Your task to perform on an android device: toggle translation in the chrome app Image 0: 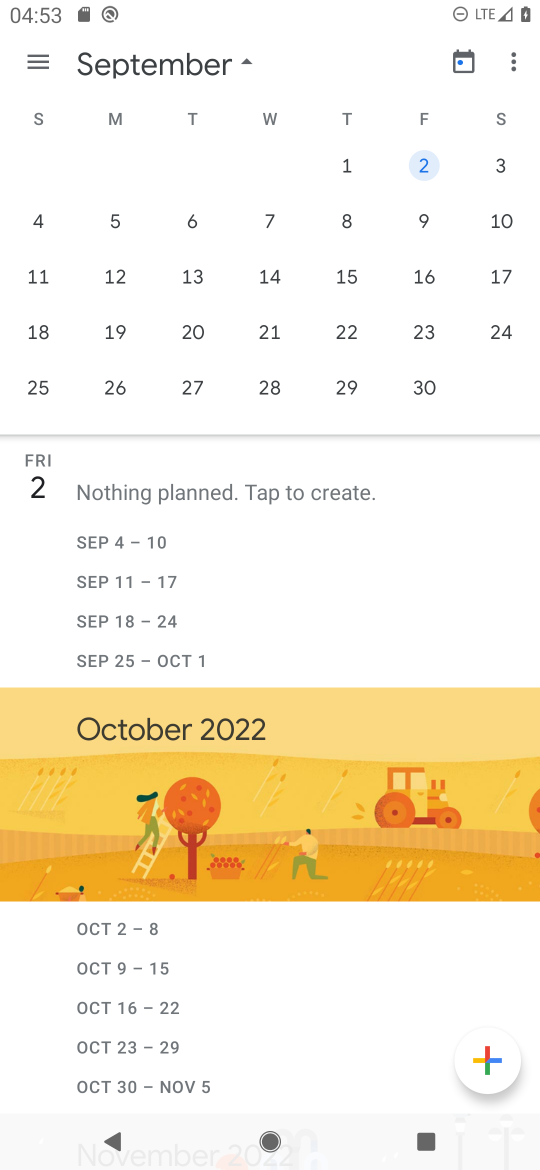
Step 0: press home button
Your task to perform on an android device: toggle translation in the chrome app Image 1: 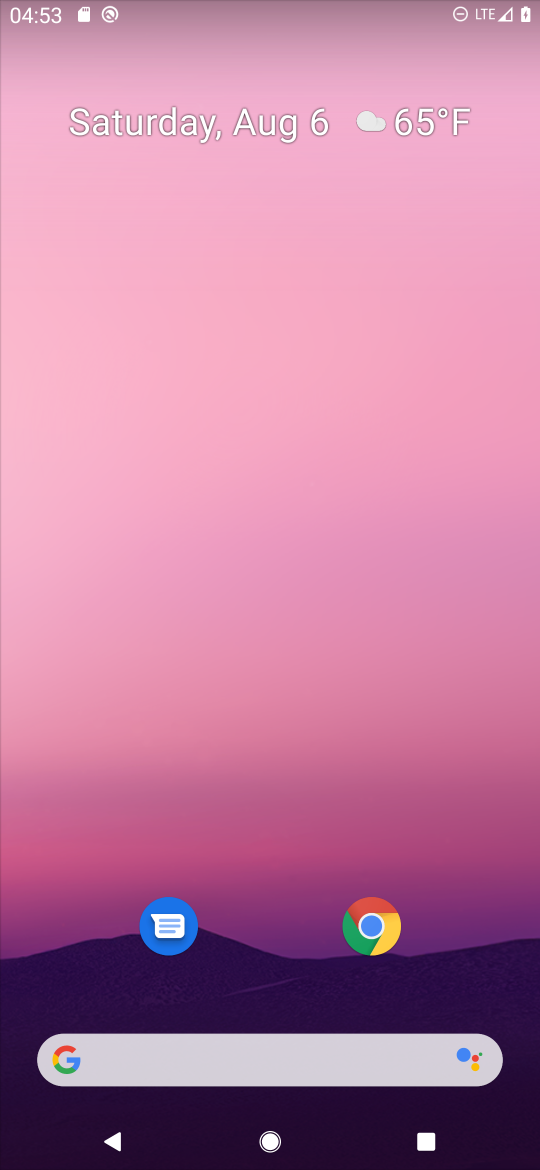
Step 1: click (379, 914)
Your task to perform on an android device: toggle translation in the chrome app Image 2: 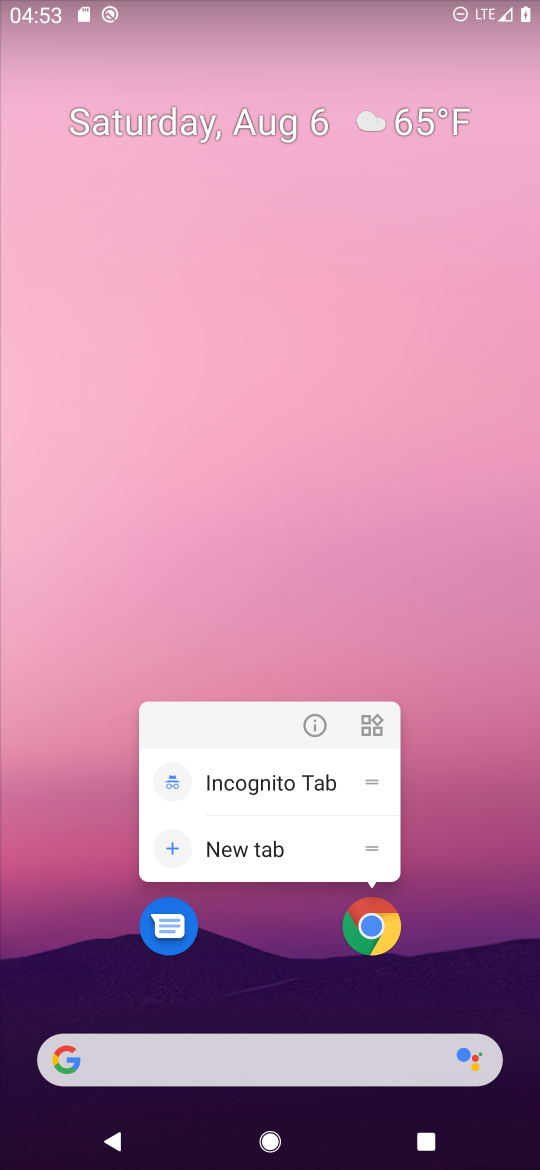
Step 2: click (381, 916)
Your task to perform on an android device: toggle translation in the chrome app Image 3: 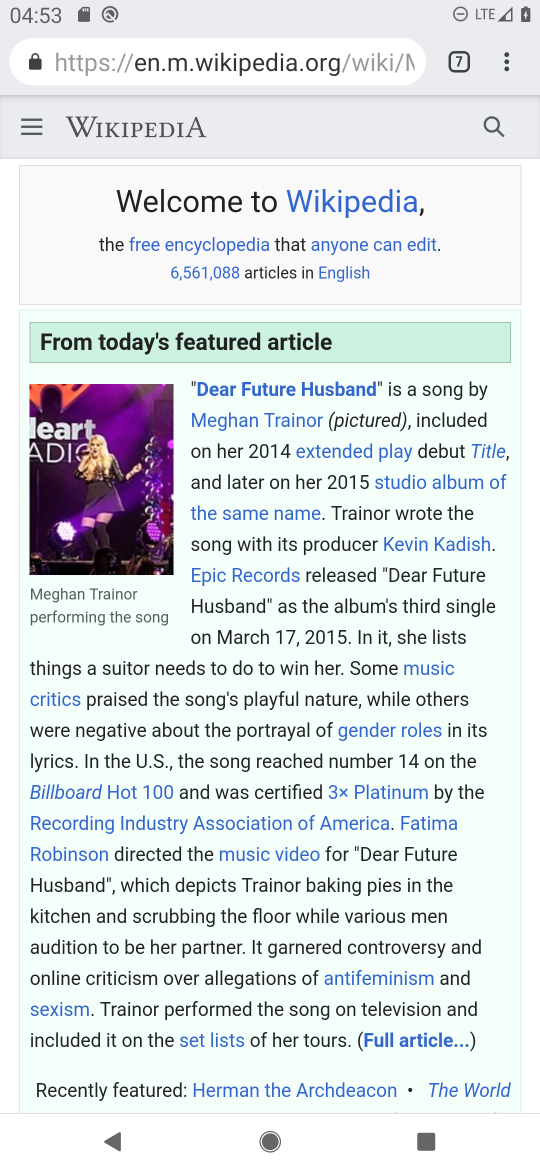
Step 3: click (502, 61)
Your task to perform on an android device: toggle translation in the chrome app Image 4: 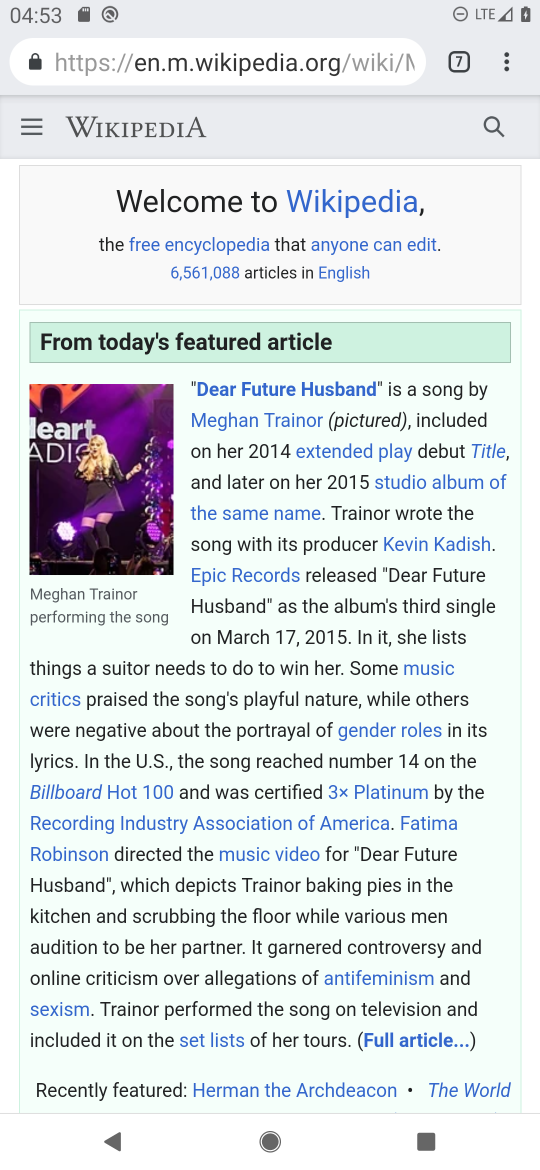
Step 4: drag from (499, 62) to (310, 746)
Your task to perform on an android device: toggle translation in the chrome app Image 5: 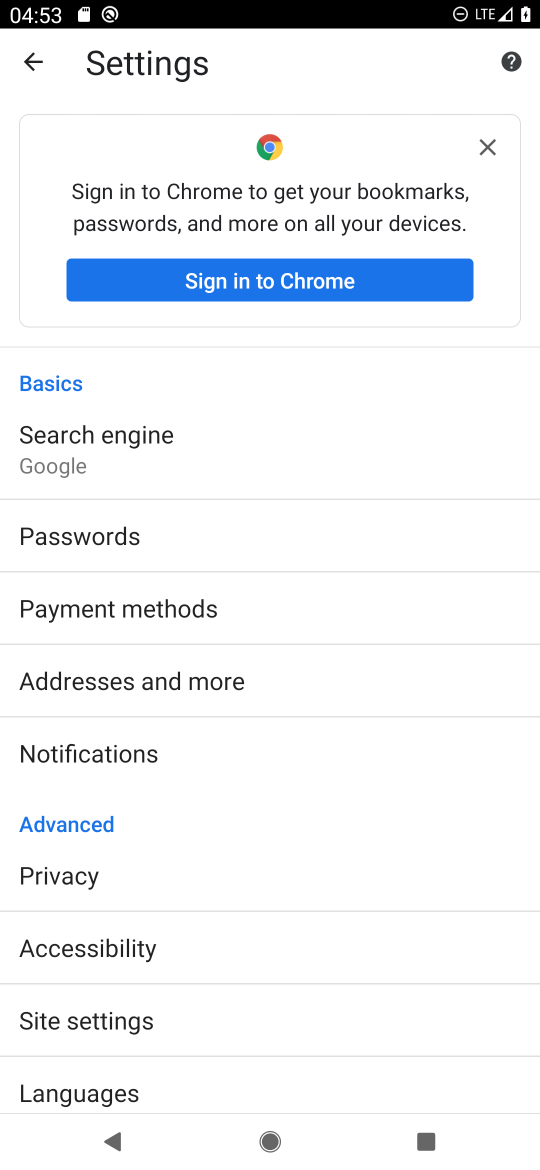
Step 5: drag from (223, 930) to (256, 521)
Your task to perform on an android device: toggle translation in the chrome app Image 6: 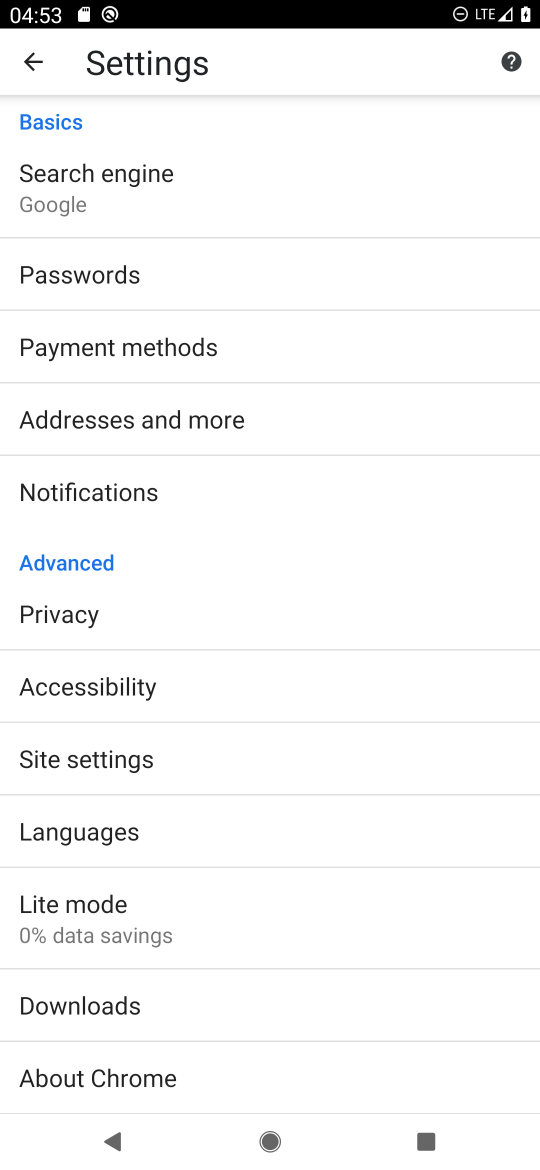
Step 6: click (153, 811)
Your task to perform on an android device: toggle translation in the chrome app Image 7: 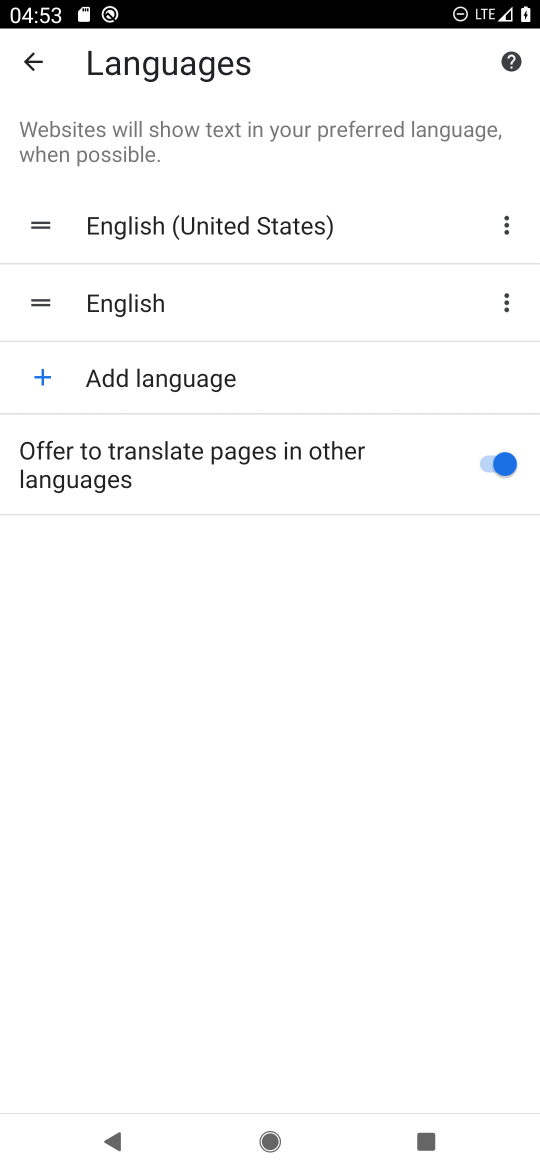
Step 7: click (486, 459)
Your task to perform on an android device: toggle translation in the chrome app Image 8: 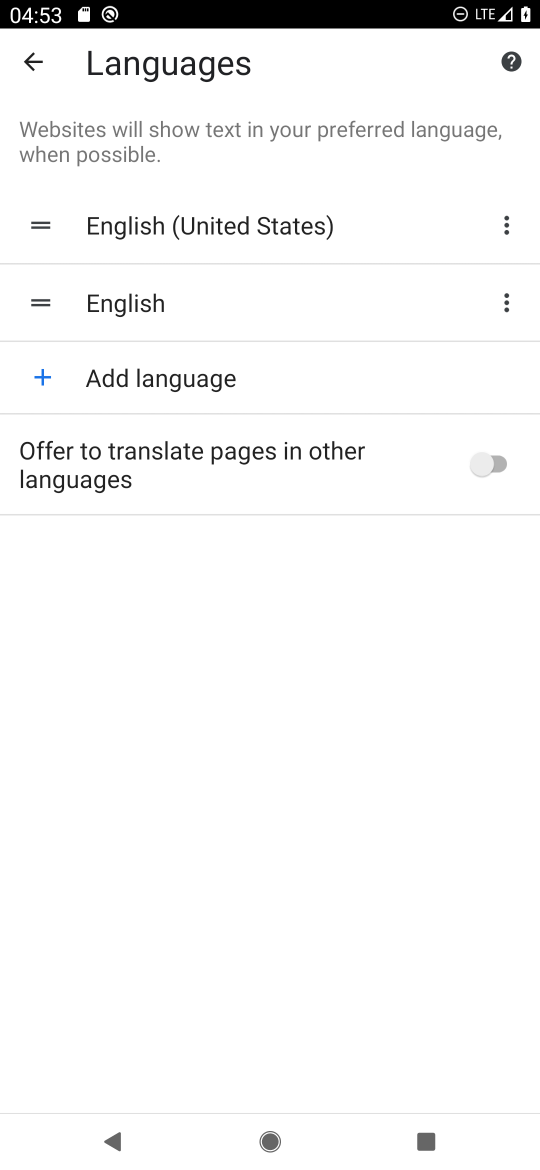
Step 8: task complete